Your task to perform on an android device: delete a single message in the gmail app Image 0: 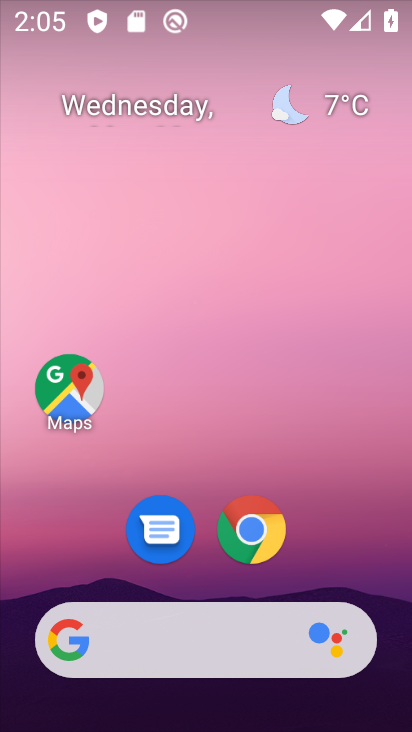
Step 0: press back button
Your task to perform on an android device: delete a single message in the gmail app Image 1: 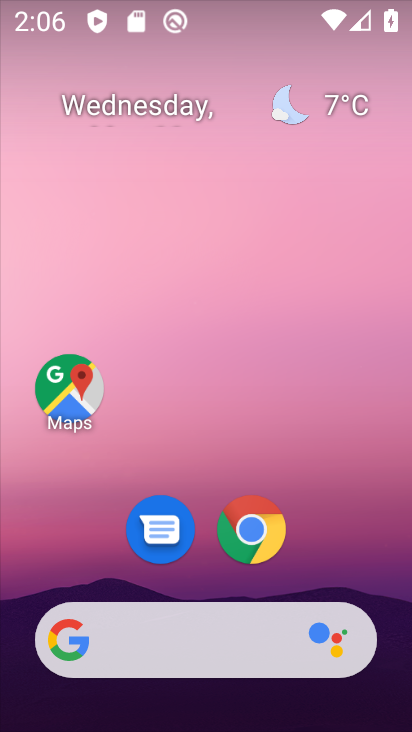
Step 1: drag from (10, 572) to (253, 4)
Your task to perform on an android device: delete a single message in the gmail app Image 2: 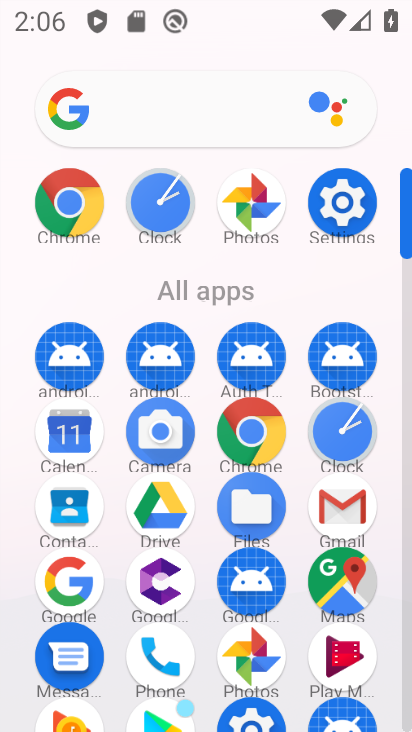
Step 2: click (340, 513)
Your task to perform on an android device: delete a single message in the gmail app Image 3: 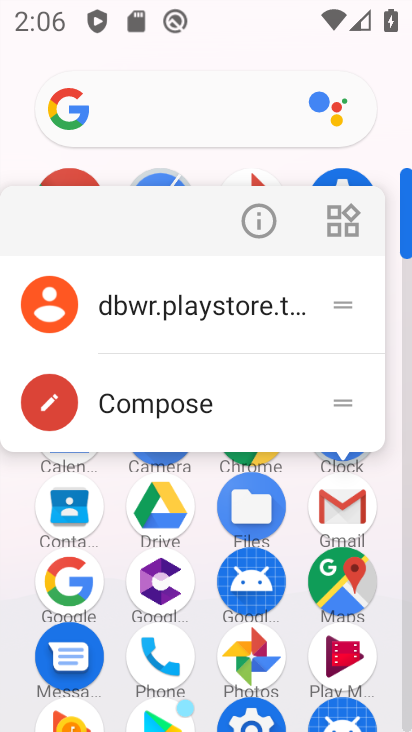
Step 3: click (334, 500)
Your task to perform on an android device: delete a single message in the gmail app Image 4: 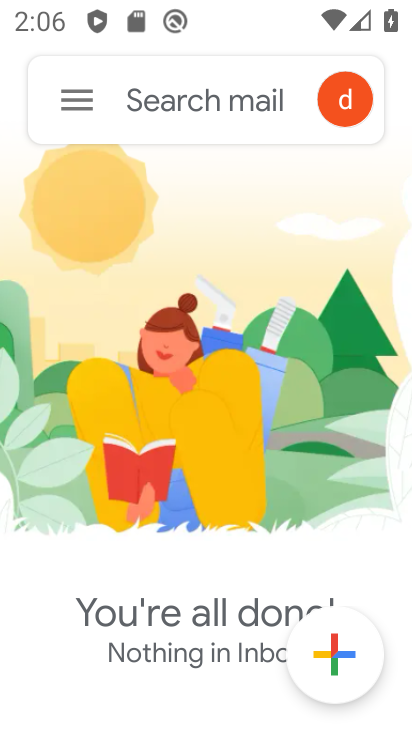
Step 4: click (73, 90)
Your task to perform on an android device: delete a single message in the gmail app Image 5: 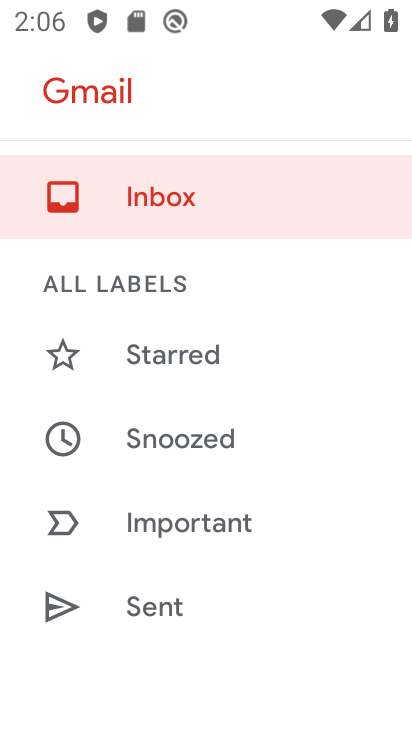
Step 5: task complete